Your task to perform on an android device: open app "Spotify" (install if not already installed) and go to login screen Image 0: 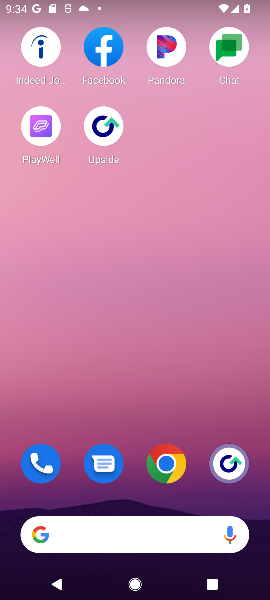
Step 0: drag from (132, 500) to (174, 85)
Your task to perform on an android device: open app "Spotify" (install if not already installed) and go to login screen Image 1: 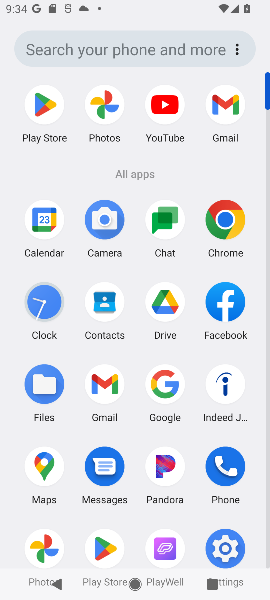
Step 1: click (100, 543)
Your task to perform on an android device: open app "Spotify" (install if not already installed) and go to login screen Image 2: 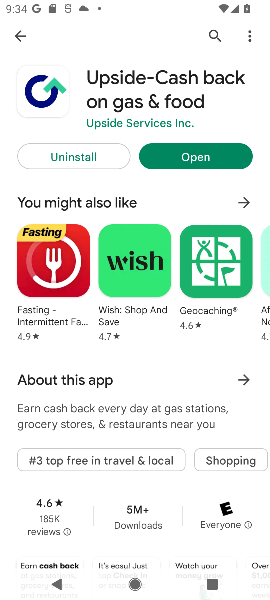
Step 2: click (212, 39)
Your task to perform on an android device: open app "Spotify" (install if not already installed) and go to login screen Image 3: 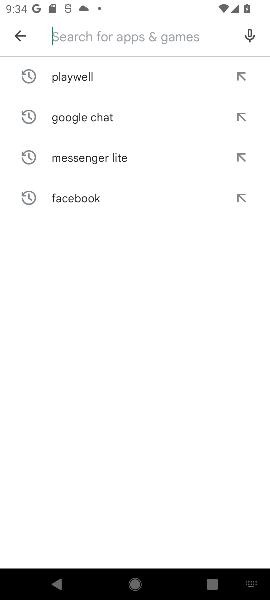
Step 3: type "Spotify"
Your task to perform on an android device: open app "Spotify" (install if not already installed) and go to login screen Image 4: 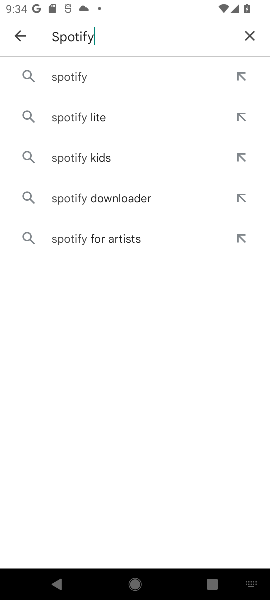
Step 4: click (98, 69)
Your task to perform on an android device: open app "Spotify" (install if not already installed) and go to login screen Image 5: 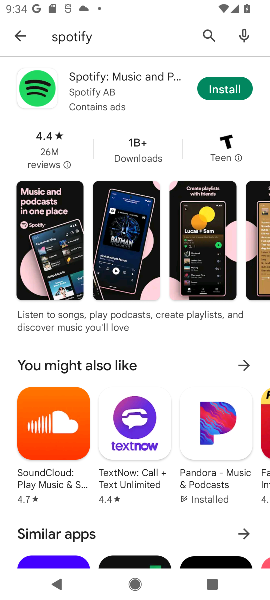
Step 5: click (218, 87)
Your task to perform on an android device: open app "Spotify" (install if not already installed) and go to login screen Image 6: 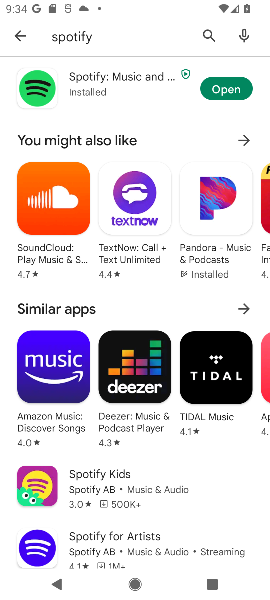
Step 6: click (225, 85)
Your task to perform on an android device: open app "Spotify" (install if not already installed) and go to login screen Image 7: 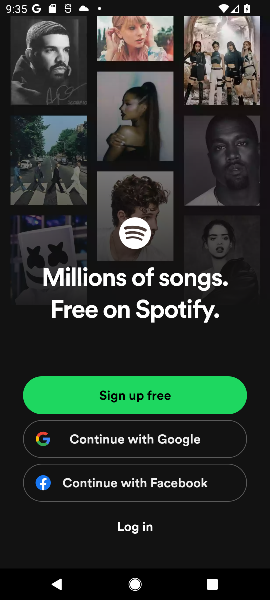
Step 7: click (121, 439)
Your task to perform on an android device: open app "Spotify" (install if not already installed) and go to login screen Image 8: 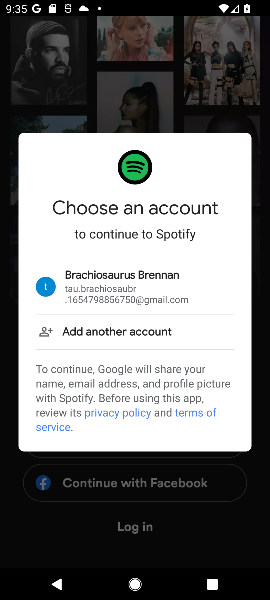
Step 8: click (114, 279)
Your task to perform on an android device: open app "Spotify" (install if not already installed) and go to login screen Image 9: 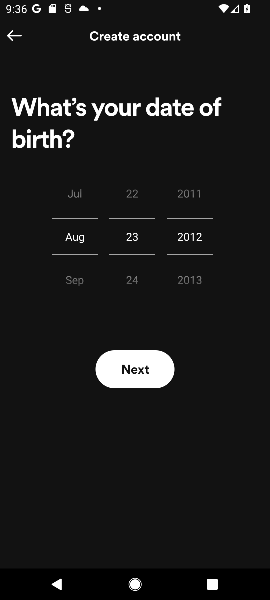
Step 9: drag from (184, 206) to (215, 372)
Your task to perform on an android device: open app "Spotify" (install if not already installed) and go to login screen Image 10: 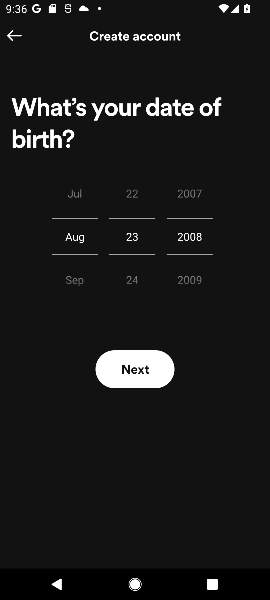
Step 10: drag from (188, 196) to (213, 390)
Your task to perform on an android device: open app "Spotify" (install if not already installed) and go to login screen Image 11: 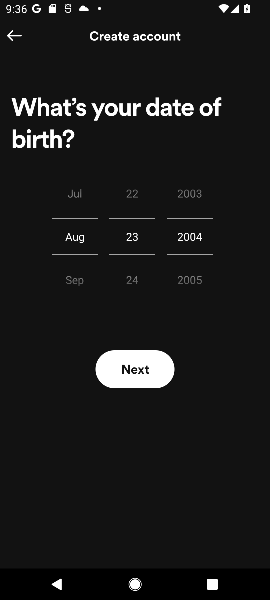
Step 11: drag from (187, 193) to (215, 430)
Your task to perform on an android device: open app "Spotify" (install if not already installed) and go to login screen Image 12: 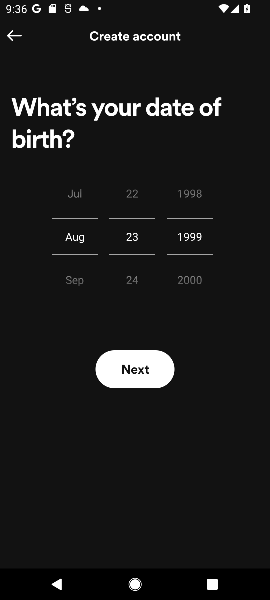
Step 12: click (126, 365)
Your task to perform on an android device: open app "Spotify" (install if not already installed) and go to login screen Image 13: 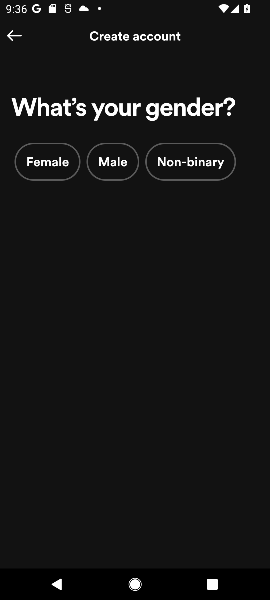
Step 13: click (120, 161)
Your task to perform on an android device: open app "Spotify" (install if not already installed) and go to login screen Image 14: 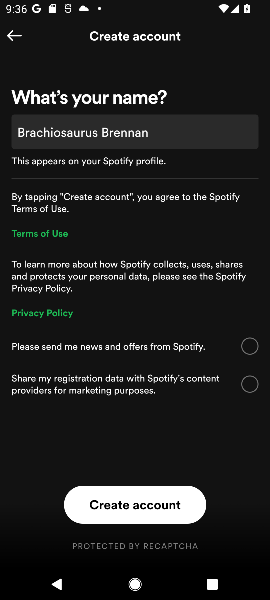
Step 14: task complete